Your task to perform on an android device: turn pop-ups on in chrome Image 0: 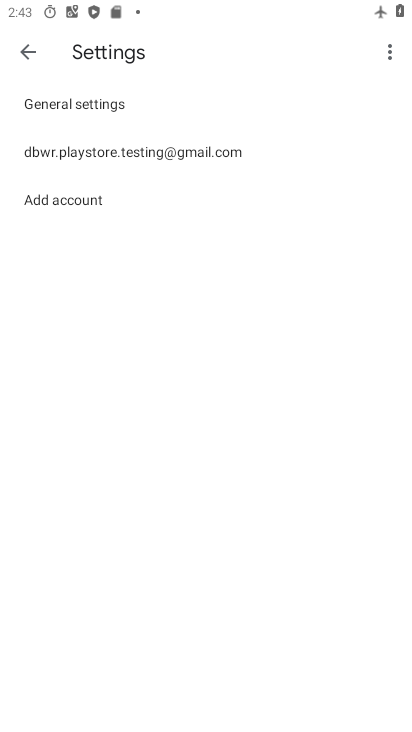
Step 0: drag from (243, 435) to (265, 220)
Your task to perform on an android device: turn pop-ups on in chrome Image 1: 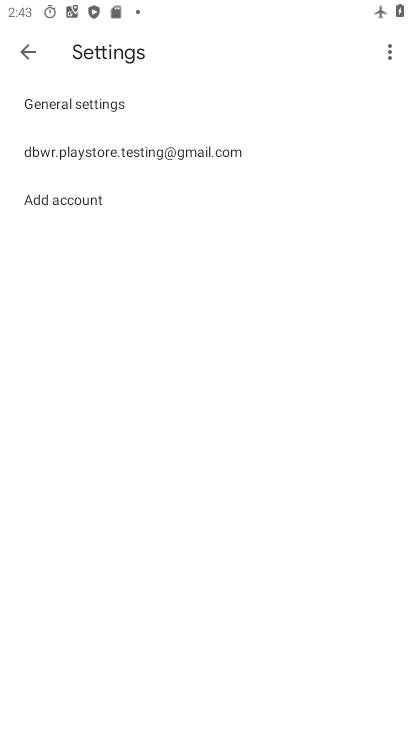
Step 1: press home button
Your task to perform on an android device: turn pop-ups on in chrome Image 2: 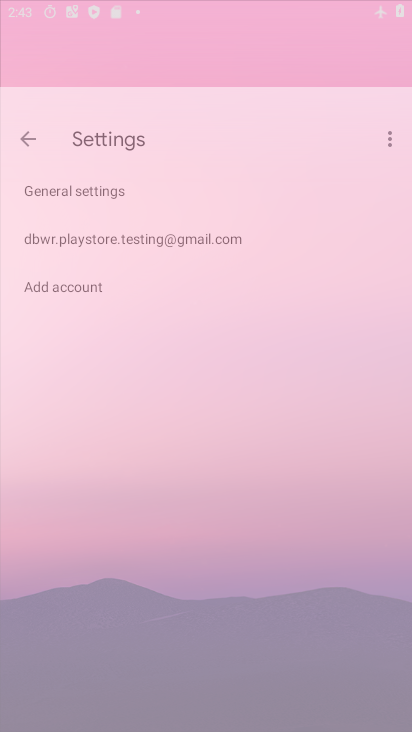
Step 2: drag from (308, 351) to (342, 114)
Your task to perform on an android device: turn pop-ups on in chrome Image 3: 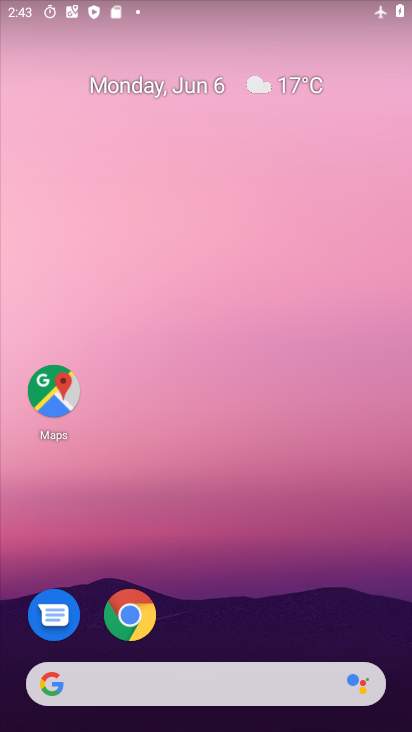
Step 3: drag from (236, 548) to (301, 102)
Your task to perform on an android device: turn pop-ups on in chrome Image 4: 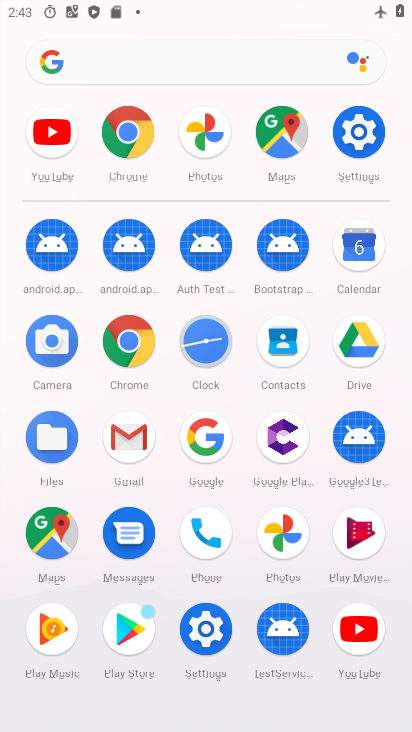
Step 4: click (132, 336)
Your task to perform on an android device: turn pop-ups on in chrome Image 5: 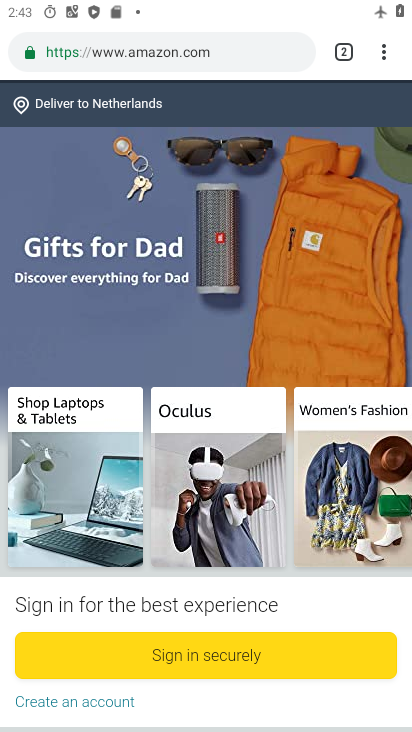
Step 5: drag from (376, 72) to (242, 578)
Your task to perform on an android device: turn pop-ups on in chrome Image 6: 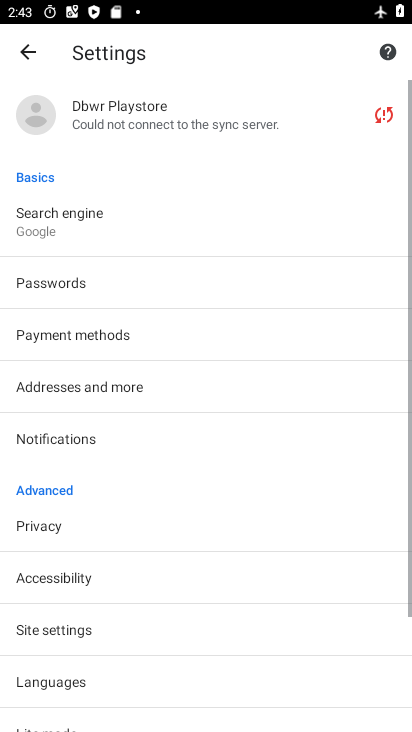
Step 6: drag from (234, 559) to (269, 83)
Your task to perform on an android device: turn pop-ups on in chrome Image 7: 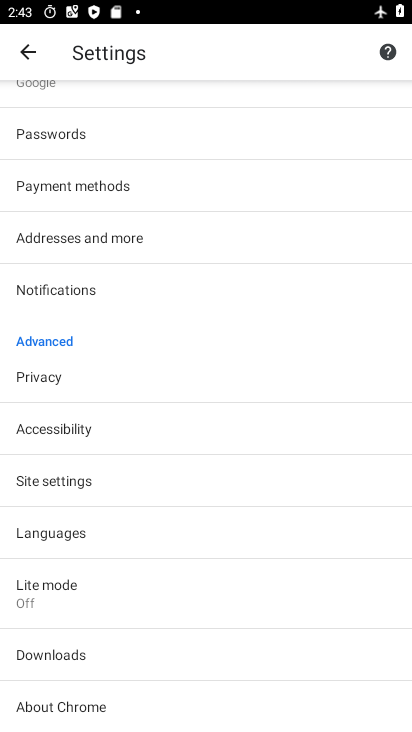
Step 7: click (123, 481)
Your task to perform on an android device: turn pop-ups on in chrome Image 8: 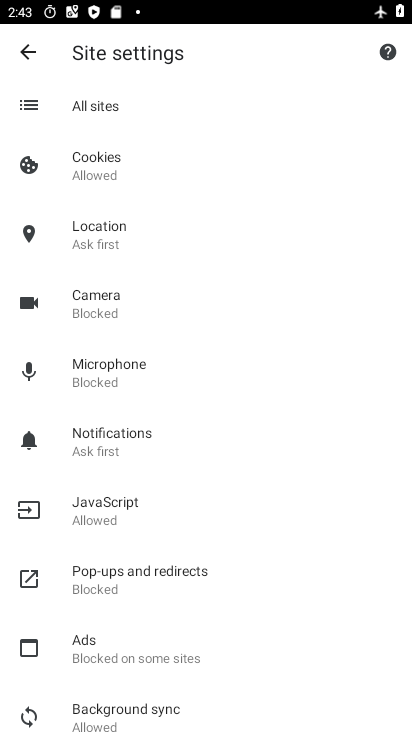
Step 8: click (195, 585)
Your task to perform on an android device: turn pop-ups on in chrome Image 9: 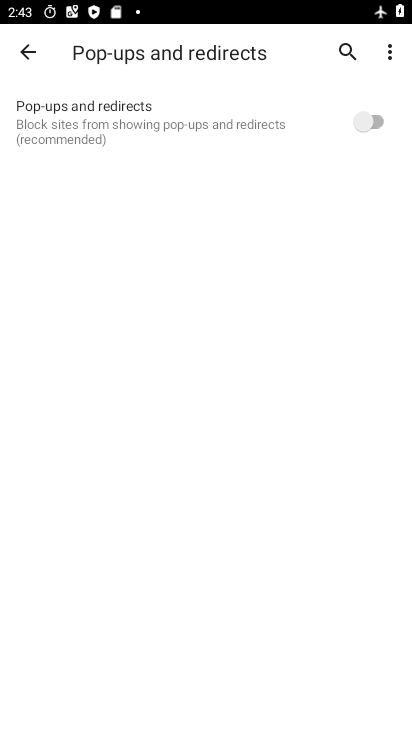
Step 9: drag from (194, 582) to (241, 271)
Your task to perform on an android device: turn pop-ups on in chrome Image 10: 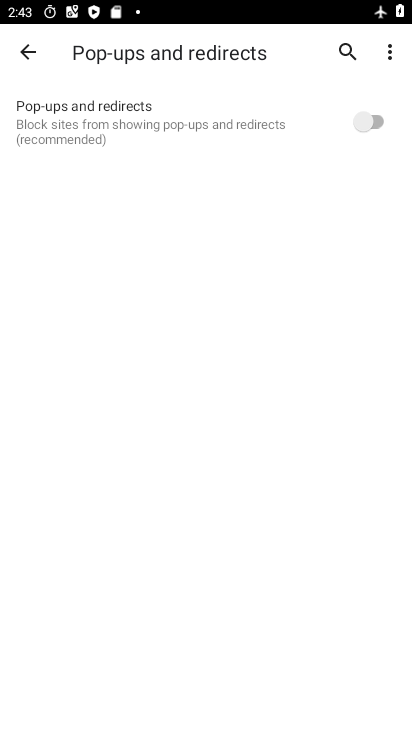
Step 10: click (290, 121)
Your task to perform on an android device: turn pop-ups on in chrome Image 11: 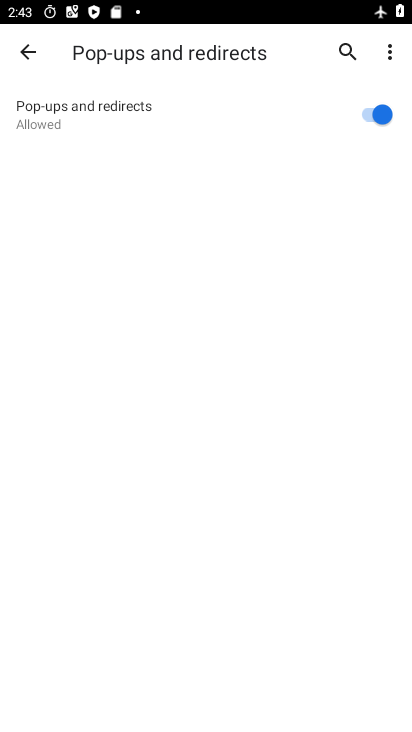
Step 11: task complete